Your task to perform on an android device: What is the news today? Image 0: 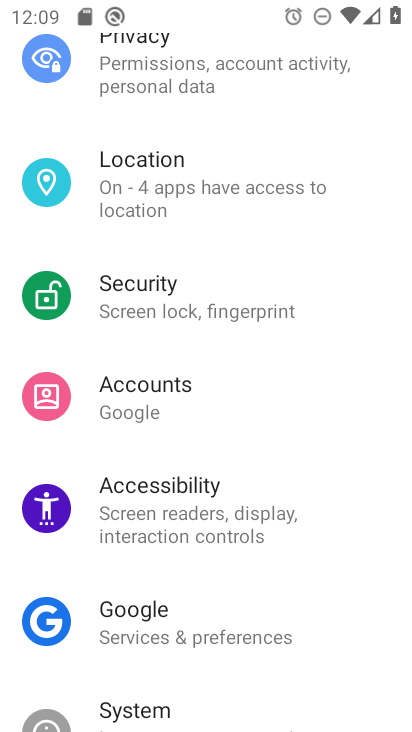
Step 0: press home button
Your task to perform on an android device: What is the news today? Image 1: 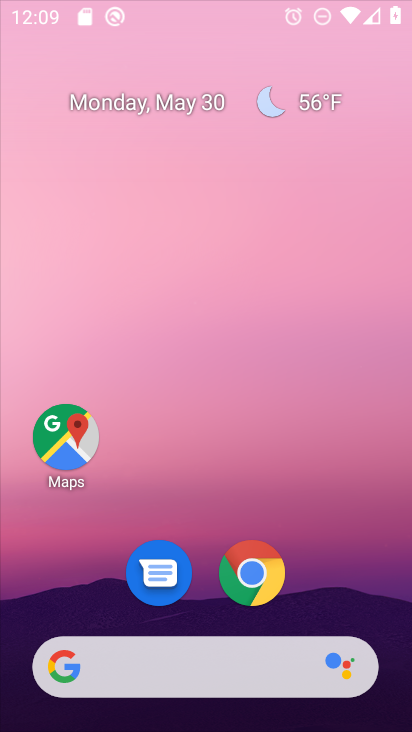
Step 1: drag from (235, 709) to (295, 21)
Your task to perform on an android device: What is the news today? Image 2: 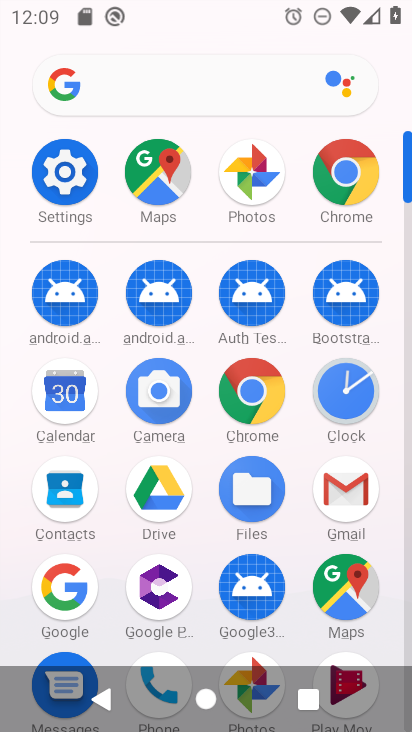
Step 2: click (251, 386)
Your task to perform on an android device: What is the news today? Image 3: 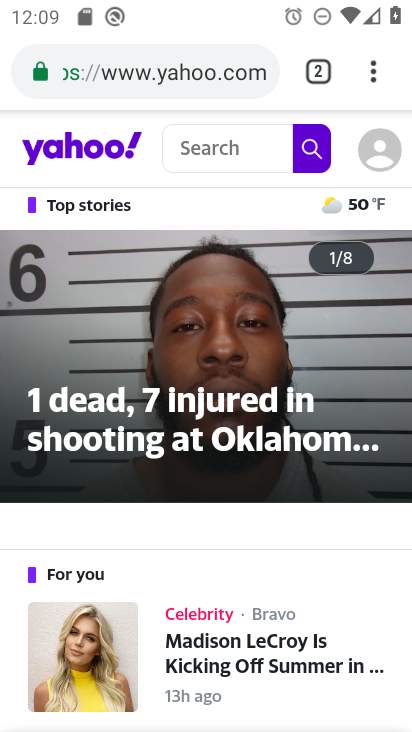
Step 3: click (179, 51)
Your task to perform on an android device: What is the news today? Image 4: 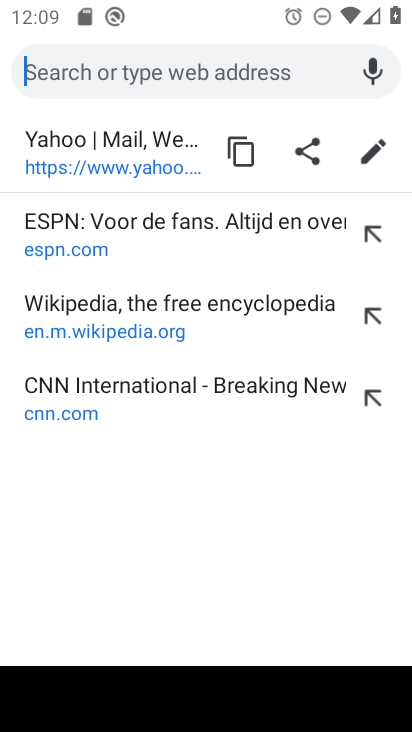
Step 4: type ""
Your task to perform on an android device: What is the news today? Image 5: 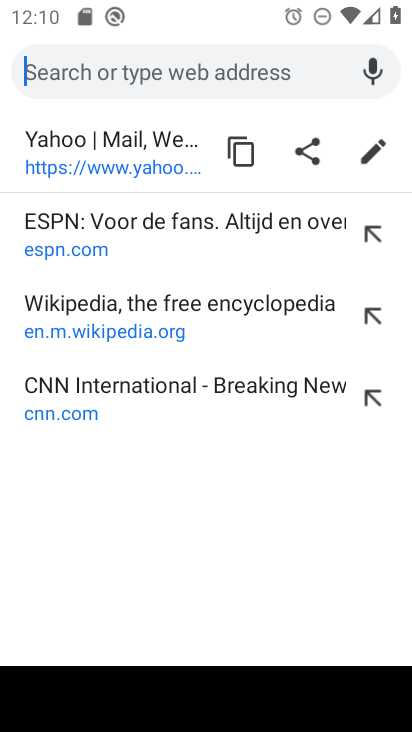
Step 5: type "news today"
Your task to perform on an android device: What is the news today? Image 6: 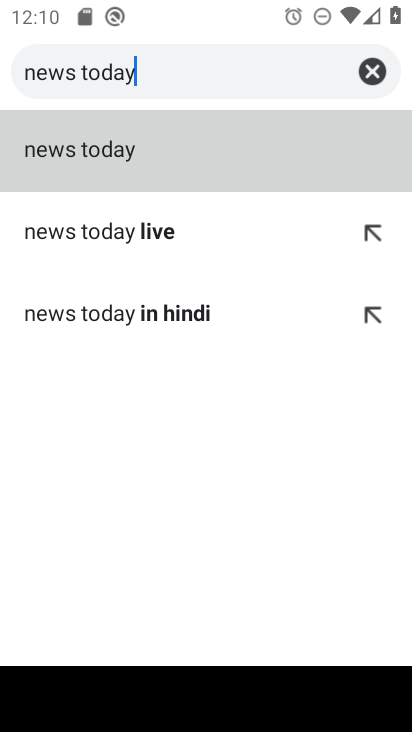
Step 6: click (192, 154)
Your task to perform on an android device: What is the news today? Image 7: 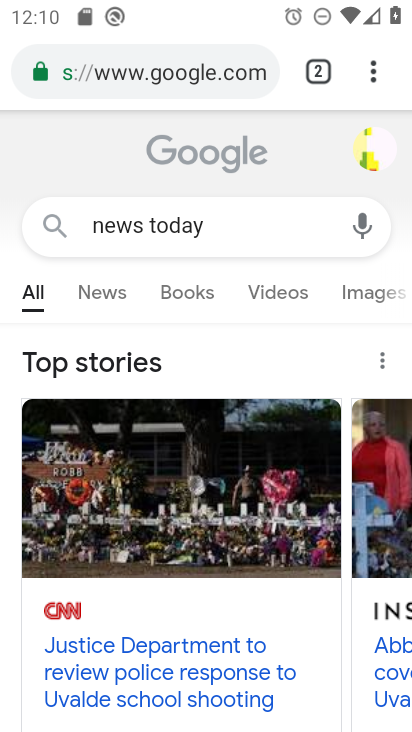
Step 7: task complete